Your task to perform on an android device: set default search engine in the chrome app Image 0: 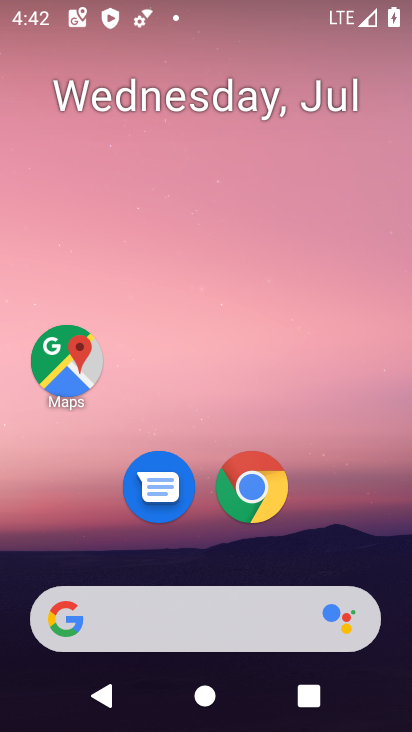
Step 0: click (254, 479)
Your task to perform on an android device: set default search engine in the chrome app Image 1: 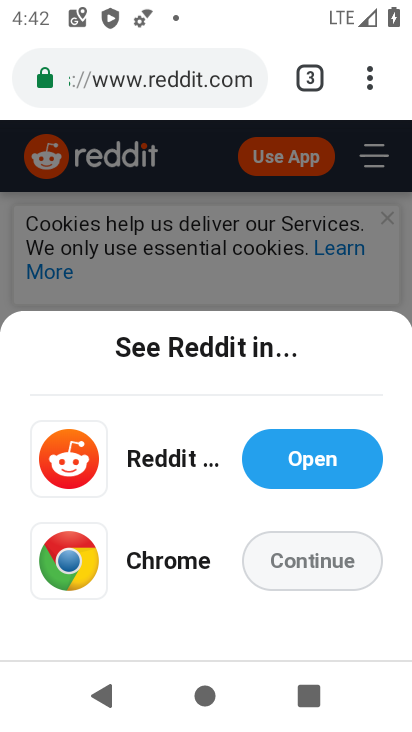
Step 1: drag from (371, 75) to (108, 537)
Your task to perform on an android device: set default search engine in the chrome app Image 2: 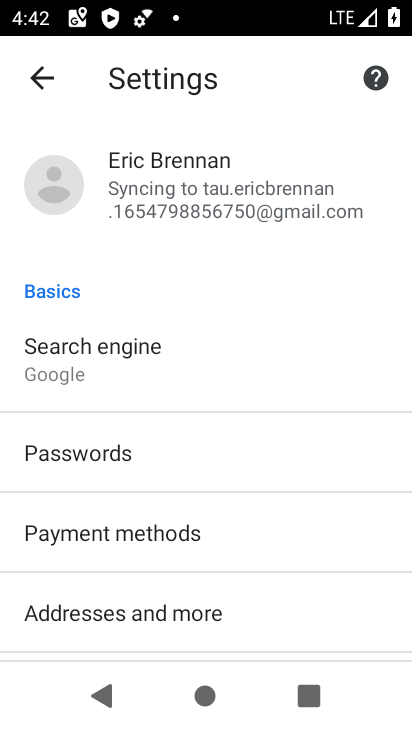
Step 2: click (88, 349)
Your task to perform on an android device: set default search engine in the chrome app Image 3: 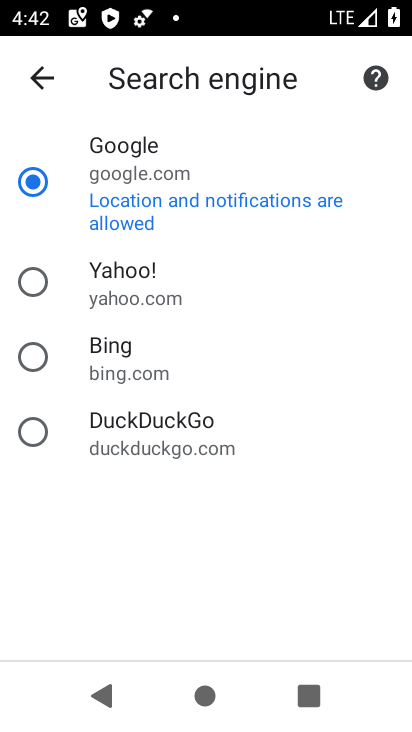
Step 3: click (29, 284)
Your task to perform on an android device: set default search engine in the chrome app Image 4: 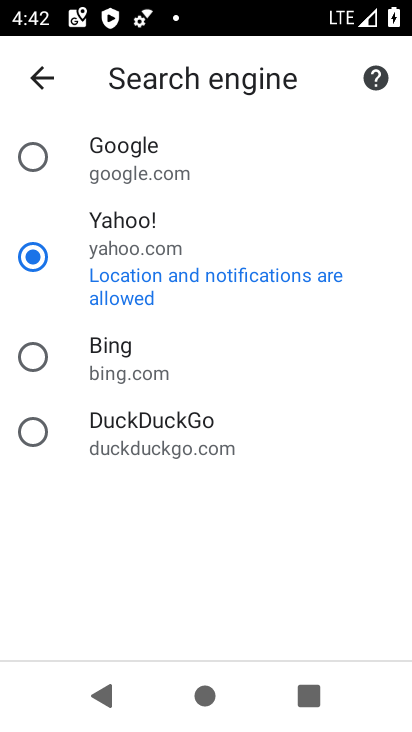
Step 4: task complete